Your task to perform on an android device: turn on translation in the chrome app Image 0: 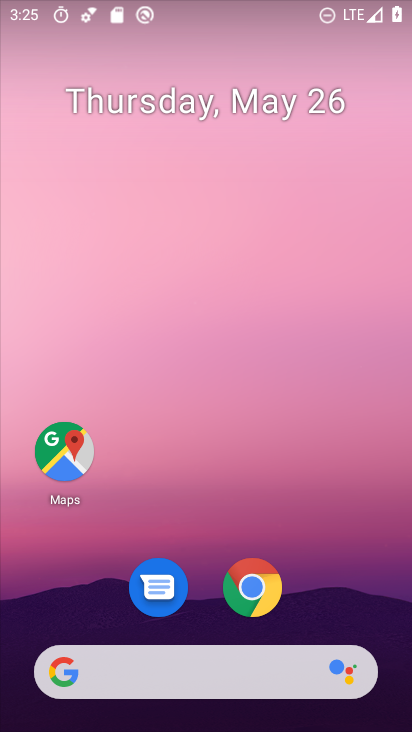
Step 0: click (255, 587)
Your task to perform on an android device: turn on translation in the chrome app Image 1: 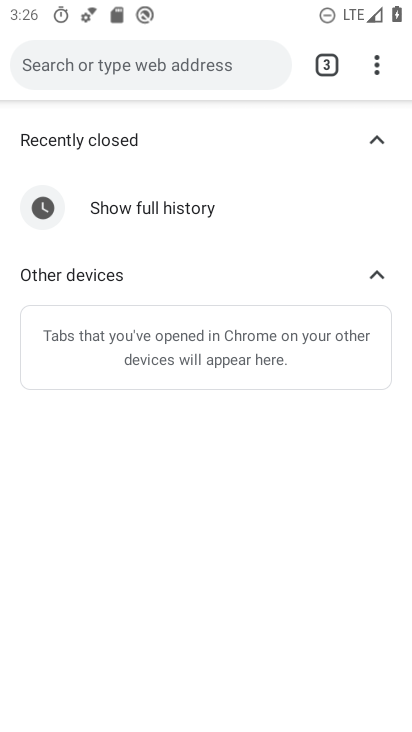
Step 1: click (386, 51)
Your task to perform on an android device: turn on translation in the chrome app Image 2: 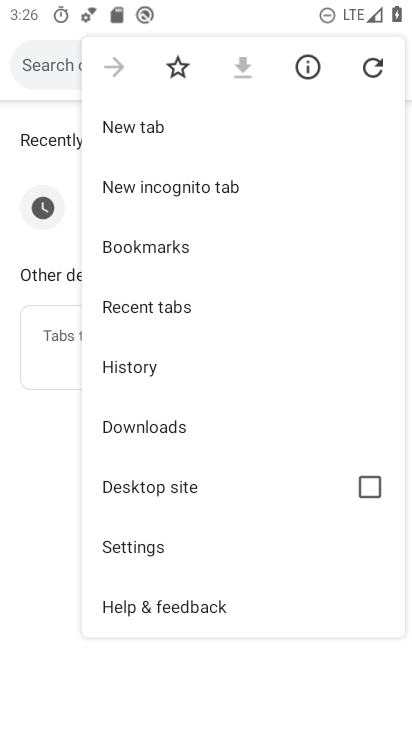
Step 2: drag from (216, 518) to (260, 78)
Your task to perform on an android device: turn on translation in the chrome app Image 3: 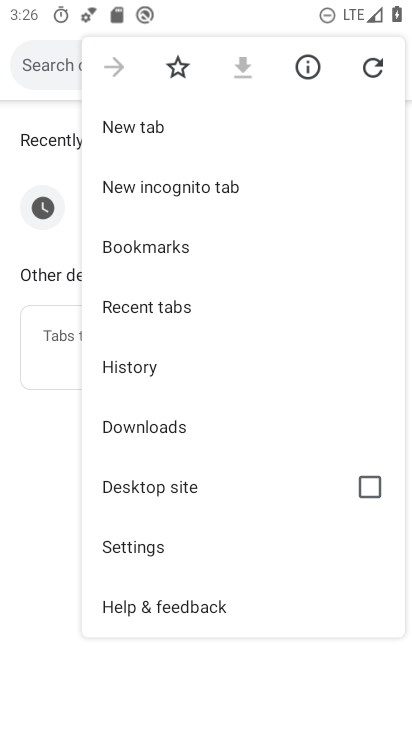
Step 3: click (128, 549)
Your task to perform on an android device: turn on translation in the chrome app Image 4: 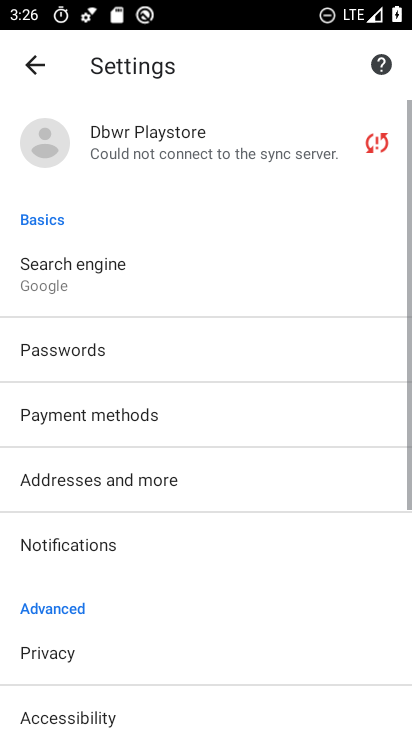
Step 4: drag from (194, 667) to (299, 159)
Your task to perform on an android device: turn on translation in the chrome app Image 5: 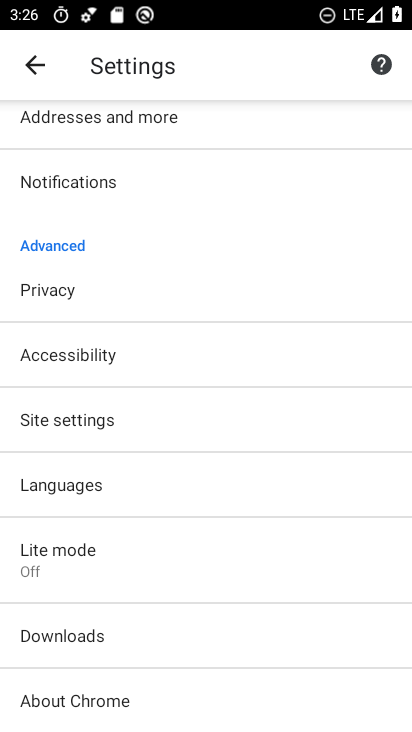
Step 5: click (84, 493)
Your task to perform on an android device: turn on translation in the chrome app Image 6: 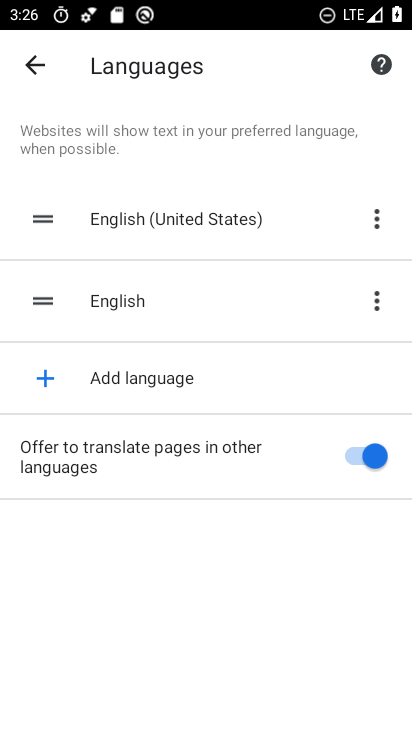
Step 6: task complete